Your task to perform on an android device: Go to Google Image 0: 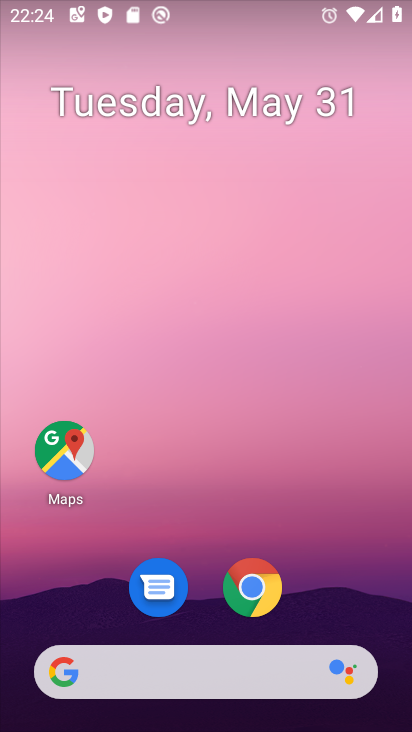
Step 0: drag from (355, 557) to (353, 192)
Your task to perform on an android device: Go to Google Image 1: 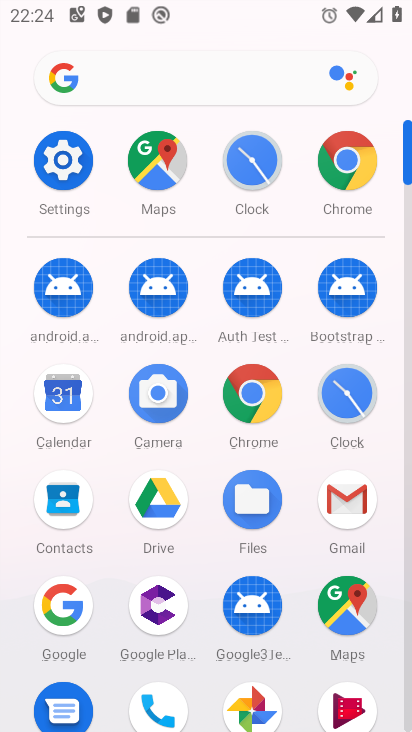
Step 1: click (56, 616)
Your task to perform on an android device: Go to Google Image 2: 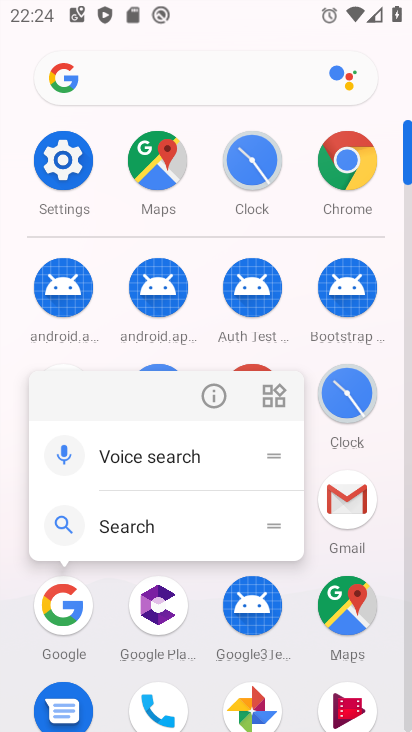
Step 2: click (57, 616)
Your task to perform on an android device: Go to Google Image 3: 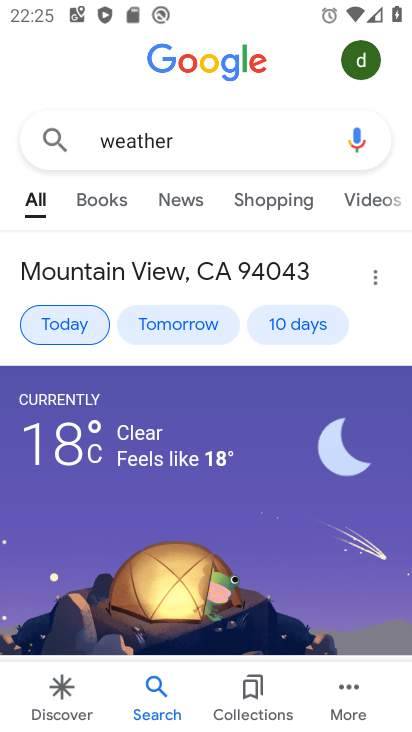
Step 3: task complete